Your task to perform on an android device: Open Google Chrome Image 0: 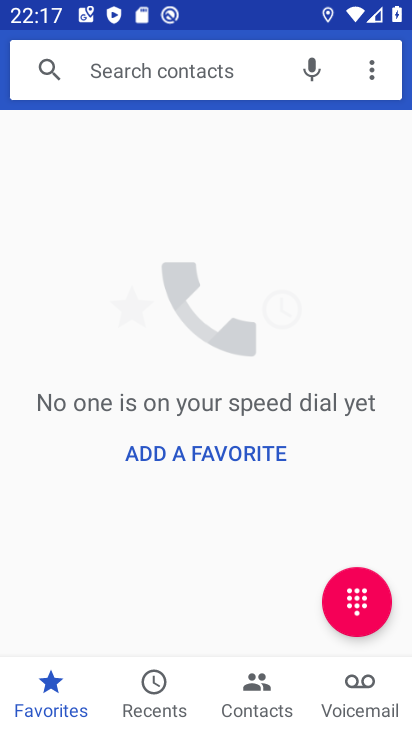
Step 0: press home button
Your task to perform on an android device: Open Google Chrome Image 1: 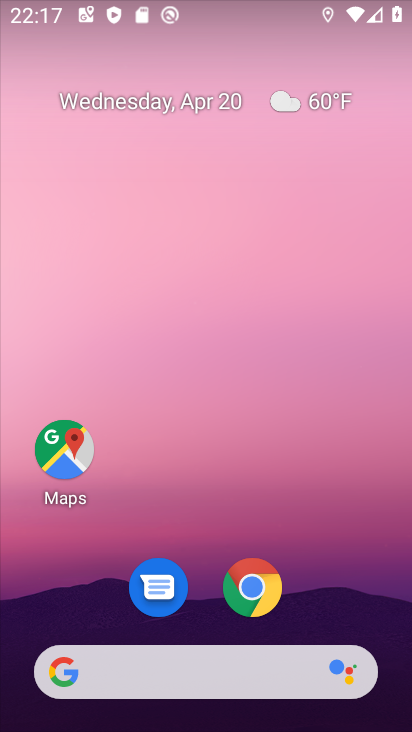
Step 1: drag from (305, 511) to (262, 134)
Your task to perform on an android device: Open Google Chrome Image 2: 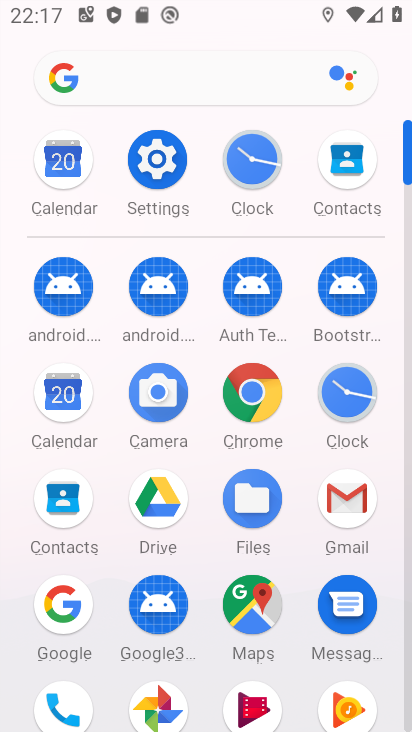
Step 2: click (251, 395)
Your task to perform on an android device: Open Google Chrome Image 3: 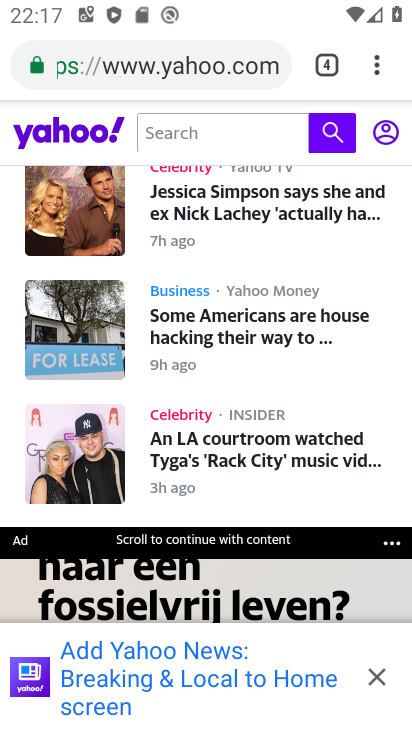
Step 3: task complete